Your task to perform on an android device: open a new tab in the chrome app Image 0: 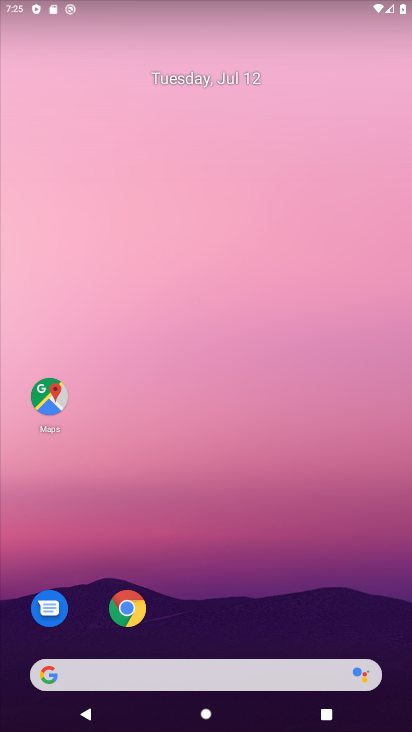
Step 0: click (124, 617)
Your task to perform on an android device: open a new tab in the chrome app Image 1: 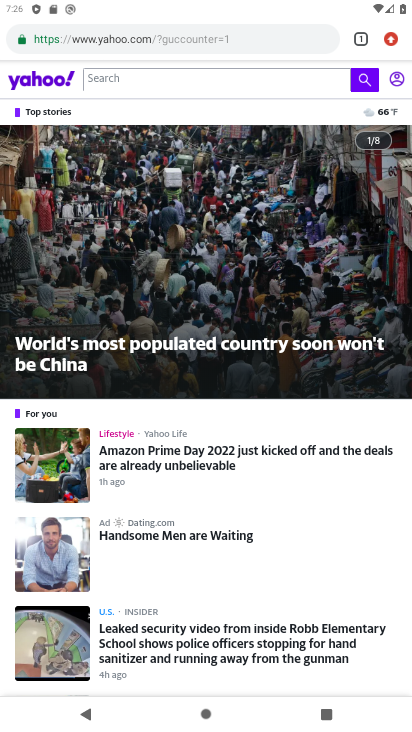
Step 1: click (364, 35)
Your task to perform on an android device: open a new tab in the chrome app Image 2: 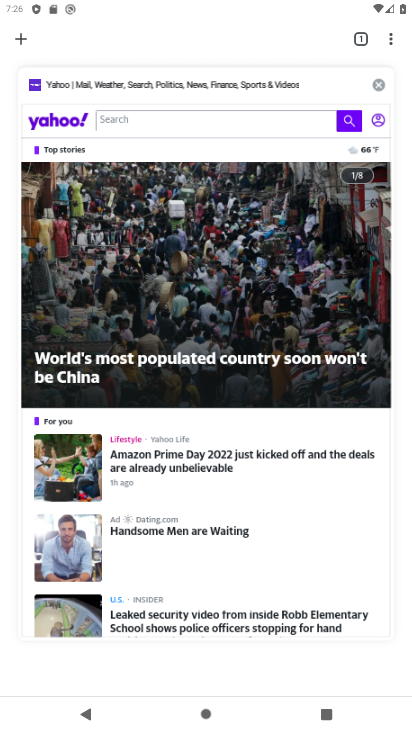
Step 2: click (19, 38)
Your task to perform on an android device: open a new tab in the chrome app Image 3: 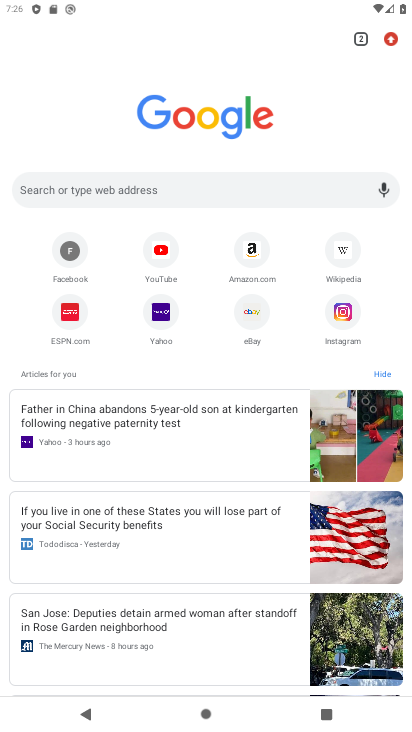
Step 3: task complete